Your task to perform on an android device: create a new album in the google photos Image 0: 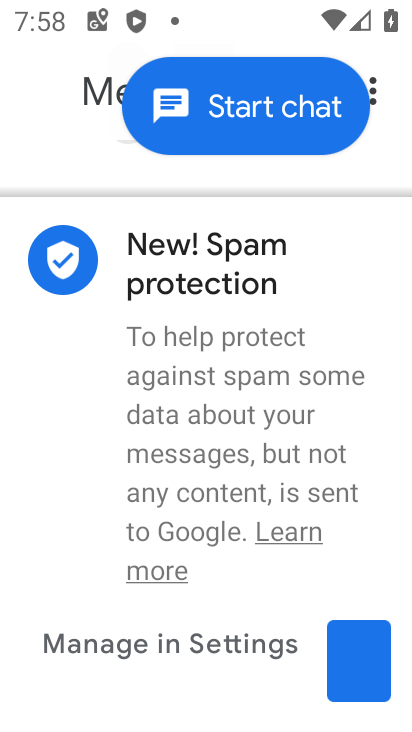
Step 0: press home button
Your task to perform on an android device: create a new album in the google photos Image 1: 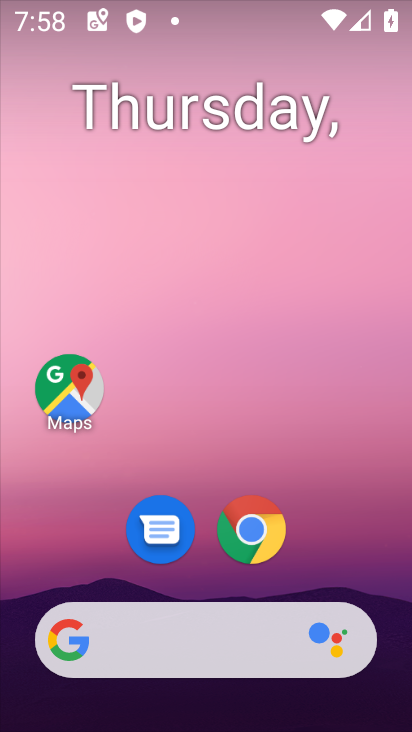
Step 1: drag from (211, 716) to (253, 195)
Your task to perform on an android device: create a new album in the google photos Image 2: 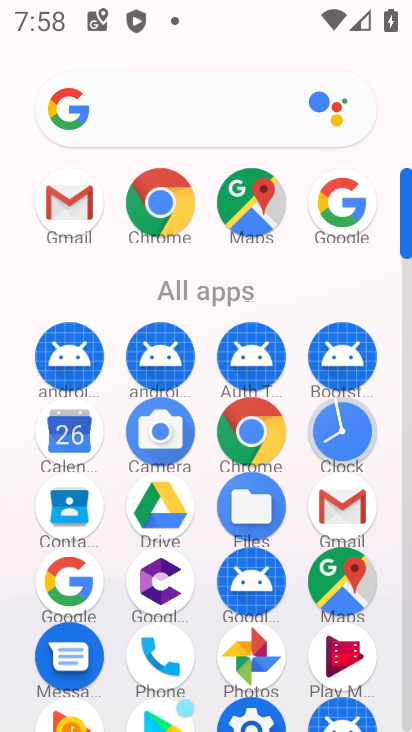
Step 2: click (244, 638)
Your task to perform on an android device: create a new album in the google photos Image 3: 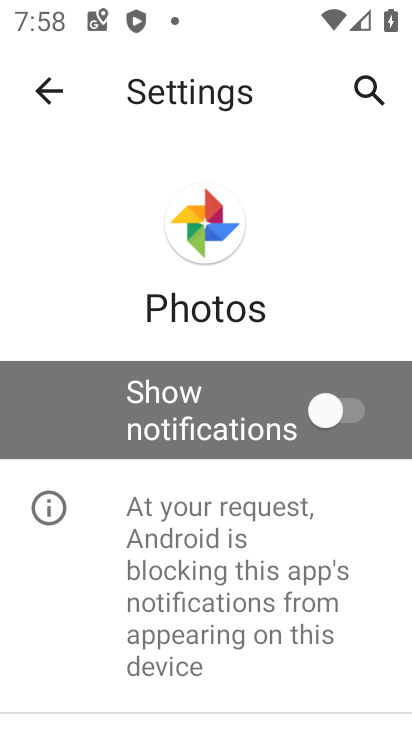
Step 3: click (55, 91)
Your task to perform on an android device: create a new album in the google photos Image 4: 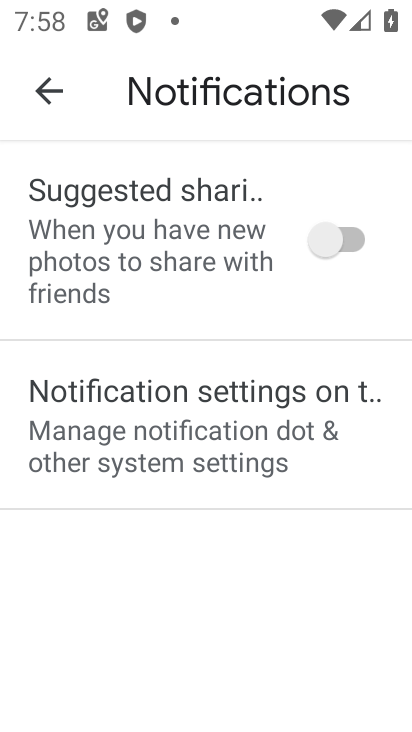
Step 4: click (54, 92)
Your task to perform on an android device: create a new album in the google photos Image 5: 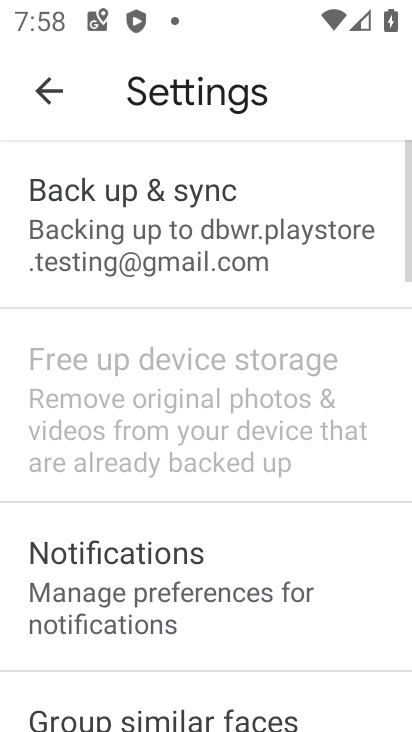
Step 5: click (42, 81)
Your task to perform on an android device: create a new album in the google photos Image 6: 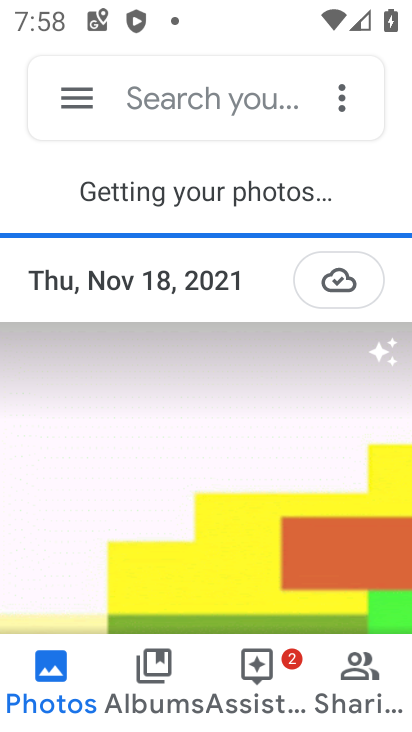
Step 6: click (344, 101)
Your task to perform on an android device: create a new album in the google photos Image 7: 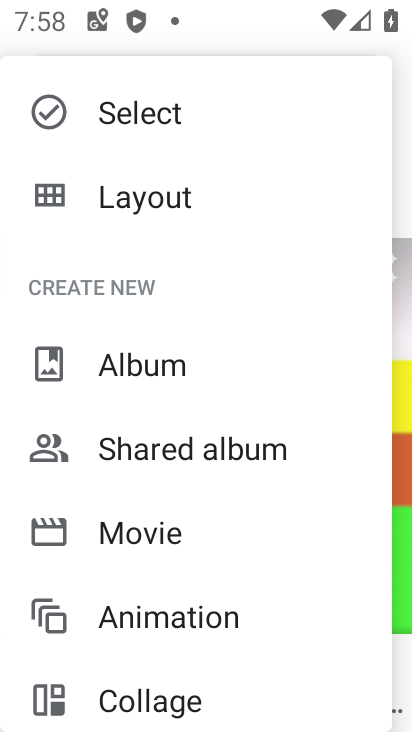
Step 7: click (143, 367)
Your task to perform on an android device: create a new album in the google photos Image 8: 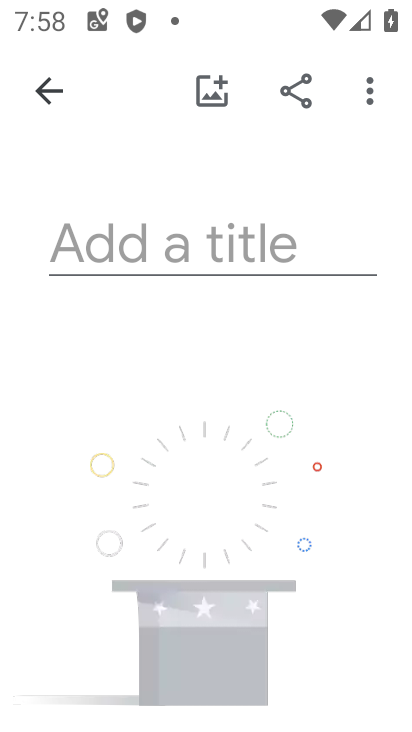
Step 8: click (183, 238)
Your task to perform on an android device: create a new album in the google photos Image 9: 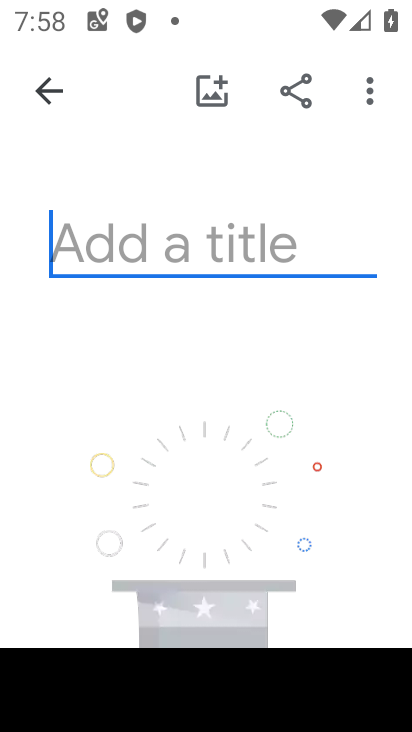
Step 9: type "nnnnn"
Your task to perform on an android device: create a new album in the google photos Image 10: 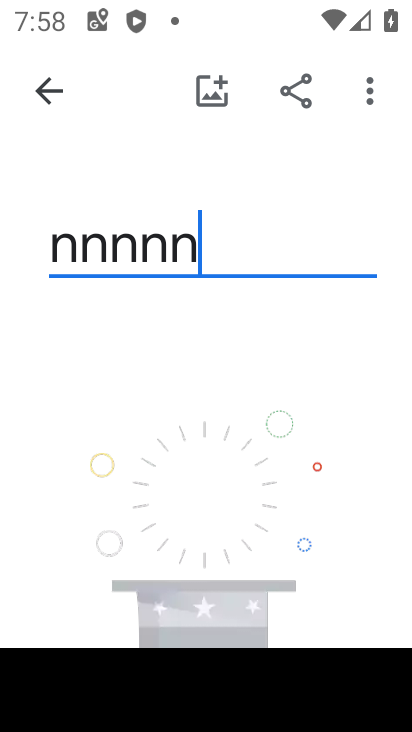
Step 10: type ""
Your task to perform on an android device: create a new album in the google photos Image 11: 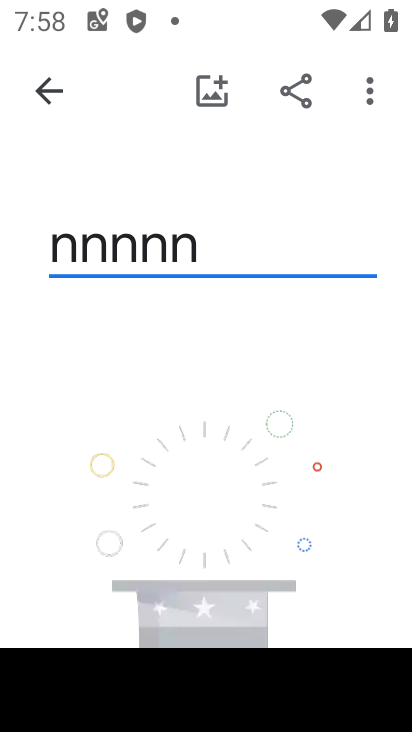
Step 11: click (236, 441)
Your task to perform on an android device: create a new album in the google photos Image 12: 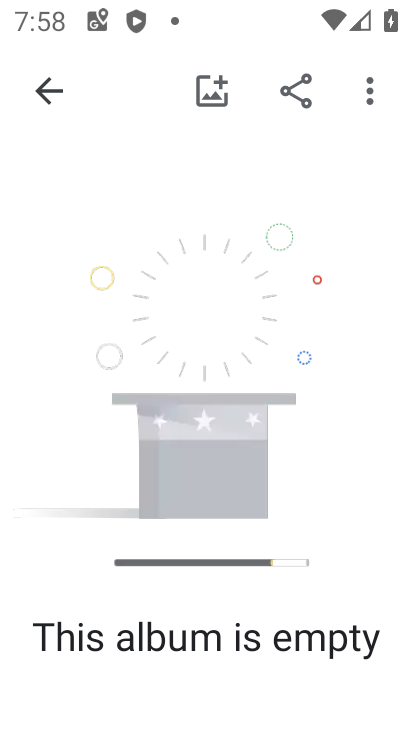
Step 12: drag from (201, 659) to (208, 474)
Your task to perform on an android device: create a new album in the google photos Image 13: 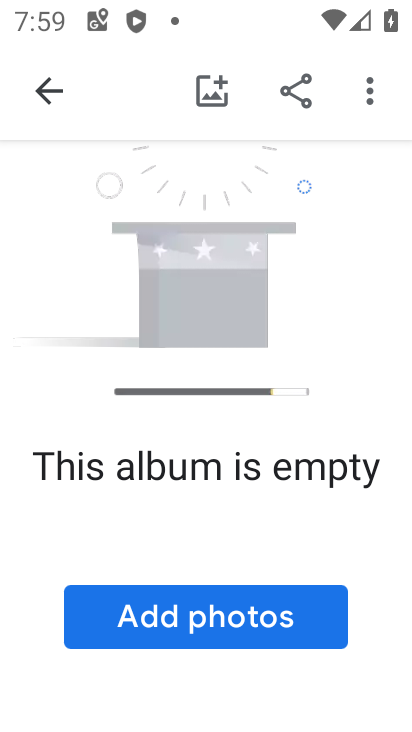
Step 13: click (194, 620)
Your task to perform on an android device: create a new album in the google photos Image 14: 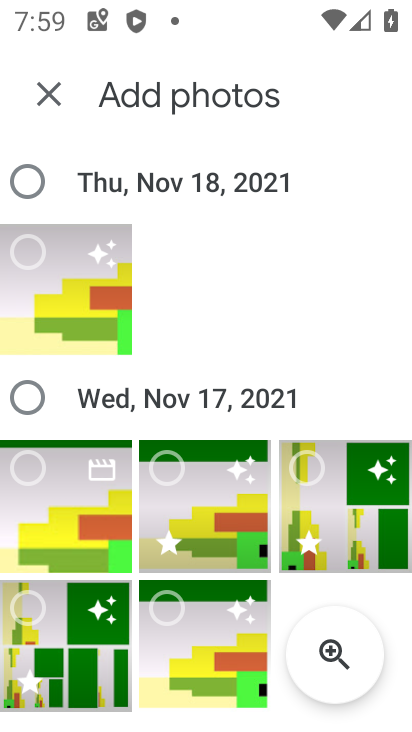
Step 14: click (31, 469)
Your task to perform on an android device: create a new album in the google photos Image 15: 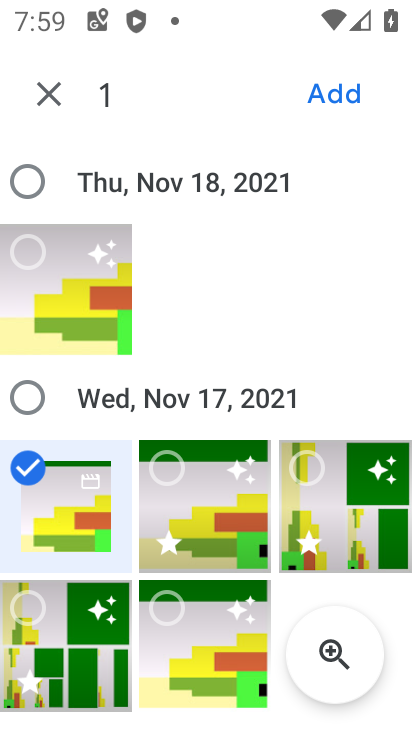
Step 15: click (165, 461)
Your task to perform on an android device: create a new album in the google photos Image 16: 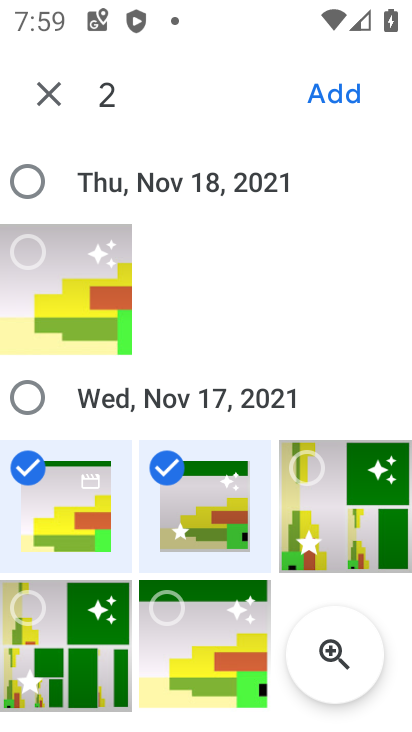
Step 16: click (334, 84)
Your task to perform on an android device: create a new album in the google photos Image 17: 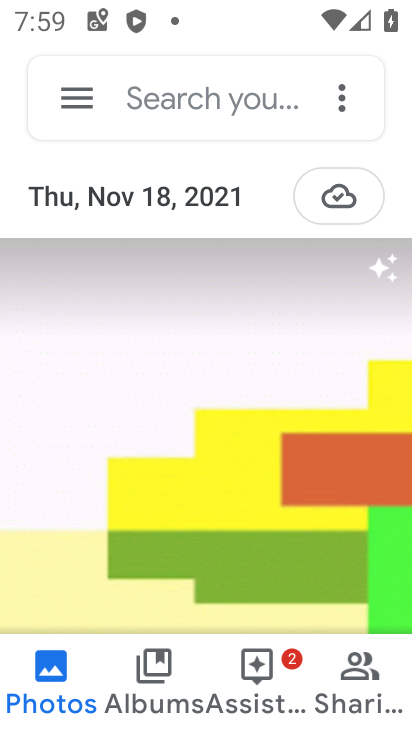
Step 17: task complete